Your task to perform on an android device: What's on my calendar today? Image 0: 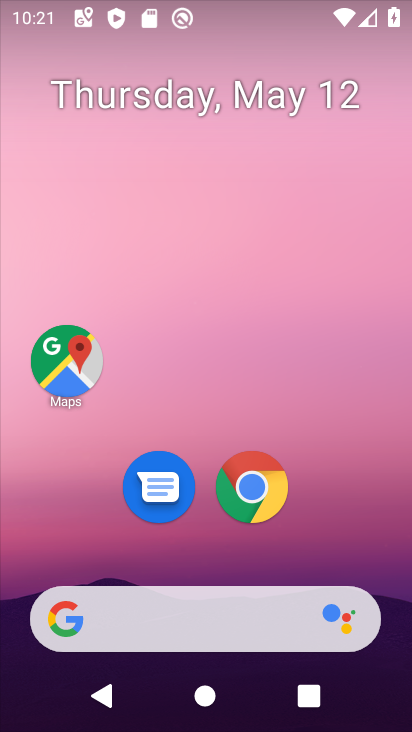
Step 0: press home button
Your task to perform on an android device: What's on my calendar today? Image 1: 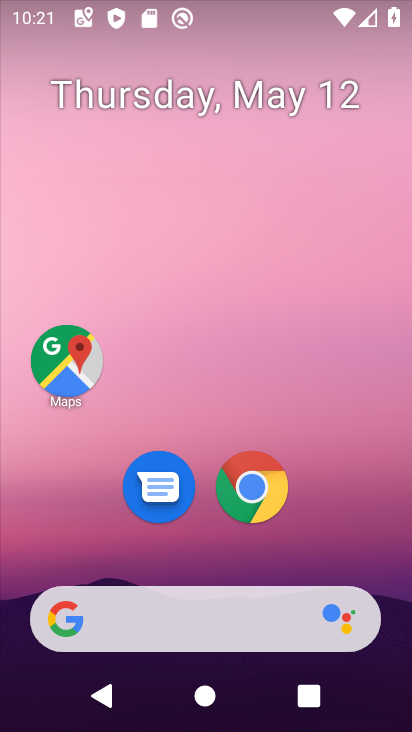
Step 1: drag from (10, 620) to (250, 167)
Your task to perform on an android device: What's on my calendar today? Image 2: 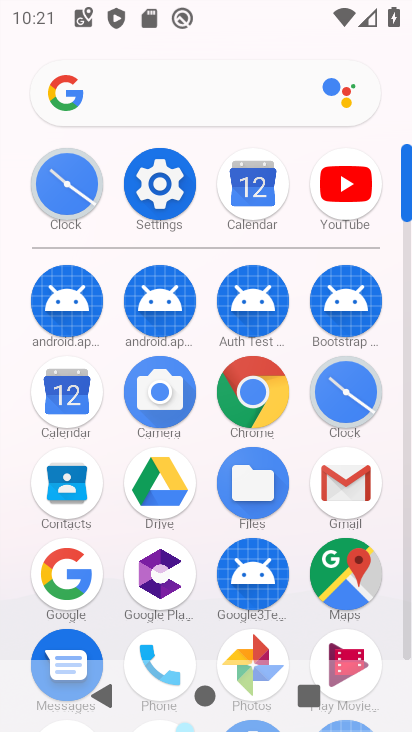
Step 2: click (83, 400)
Your task to perform on an android device: What's on my calendar today? Image 3: 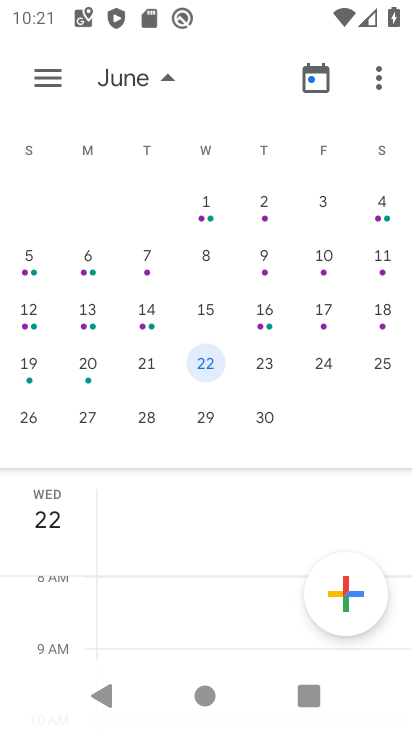
Step 3: task complete